Your task to perform on an android device: Turn on the flashlight Image 0: 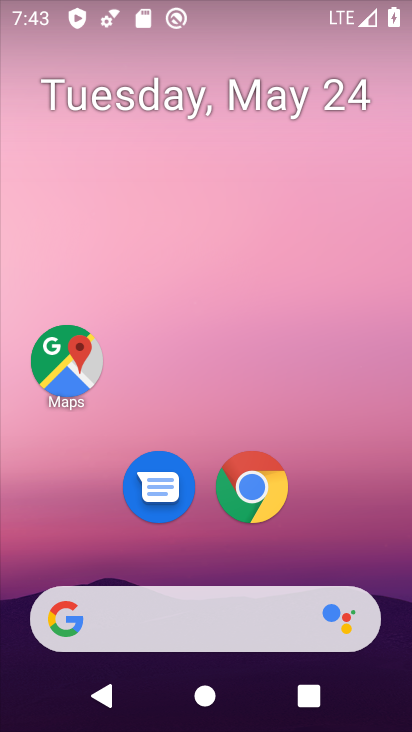
Step 0: drag from (352, 533) to (283, 730)
Your task to perform on an android device: Turn on the flashlight Image 1: 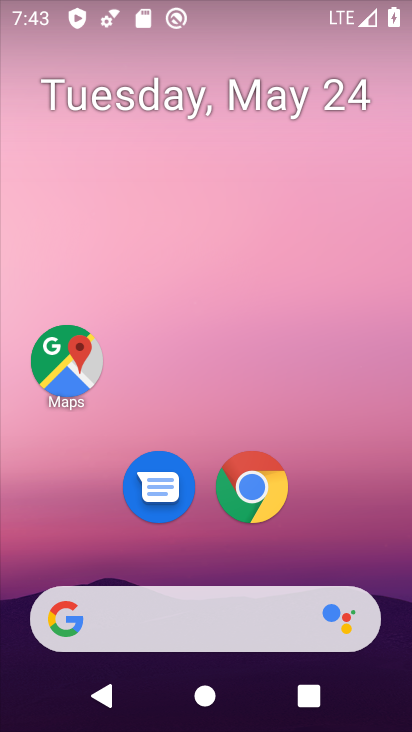
Step 1: task complete